Your task to perform on an android device: clear all cookies in the chrome app Image 0: 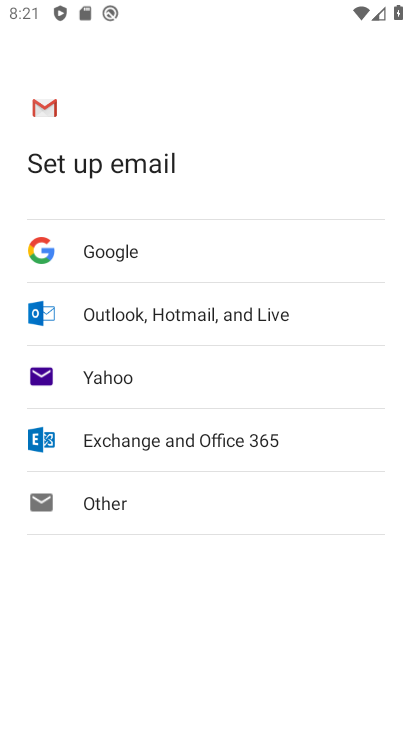
Step 0: press home button
Your task to perform on an android device: clear all cookies in the chrome app Image 1: 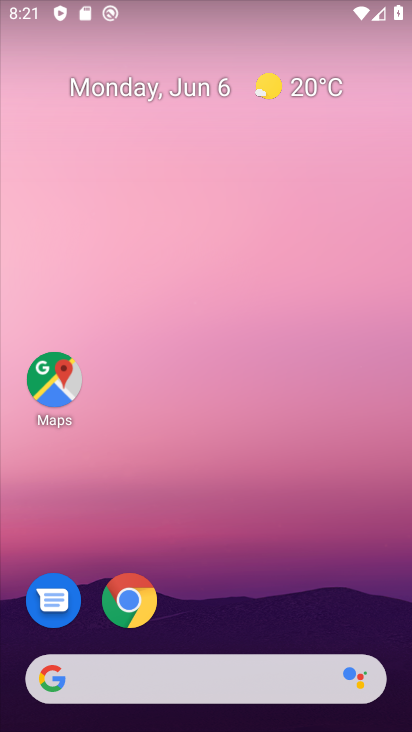
Step 1: click (126, 603)
Your task to perform on an android device: clear all cookies in the chrome app Image 2: 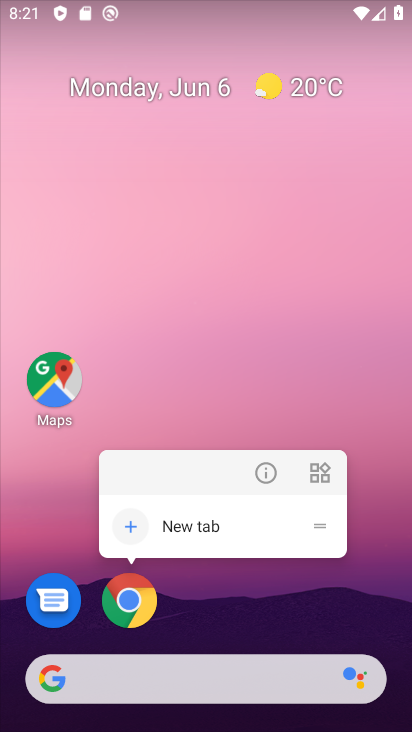
Step 2: click (138, 609)
Your task to perform on an android device: clear all cookies in the chrome app Image 3: 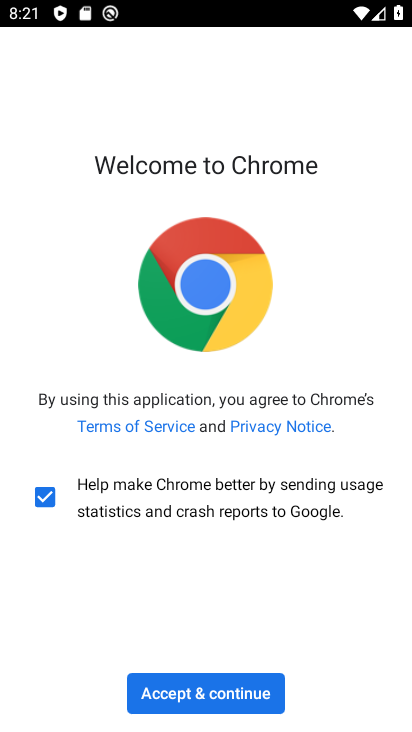
Step 3: click (204, 714)
Your task to perform on an android device: clear all cookies in the chrome app Image 4: 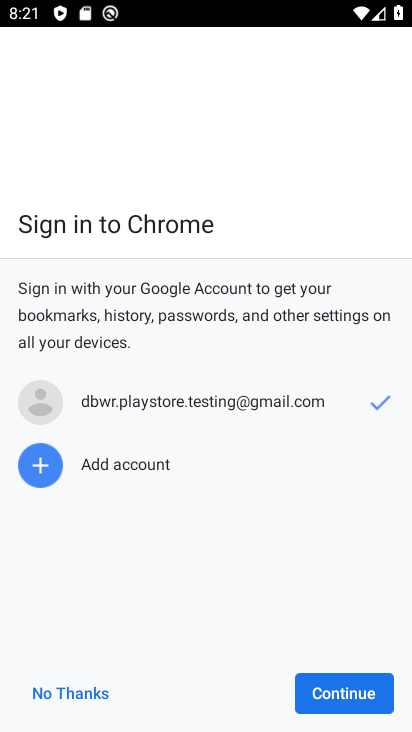
Step 4: click (59, 697)
Your task to perform on an android device: clear all cookies in the chrome app Image 5: 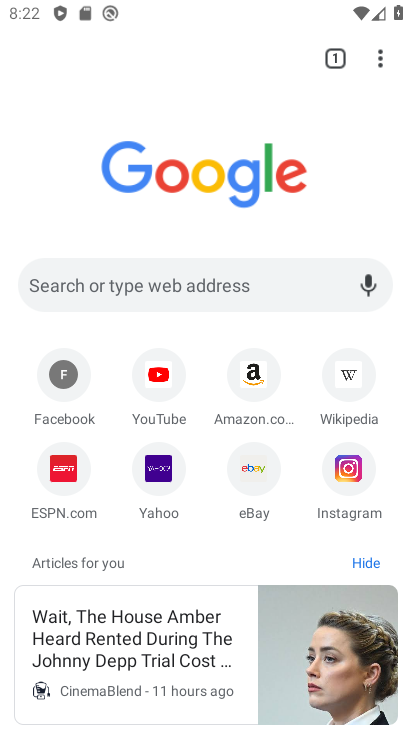
Step 5: click (384, 56)
Your task to perform on an android device: clear all cookies in the chrome app Image 6: 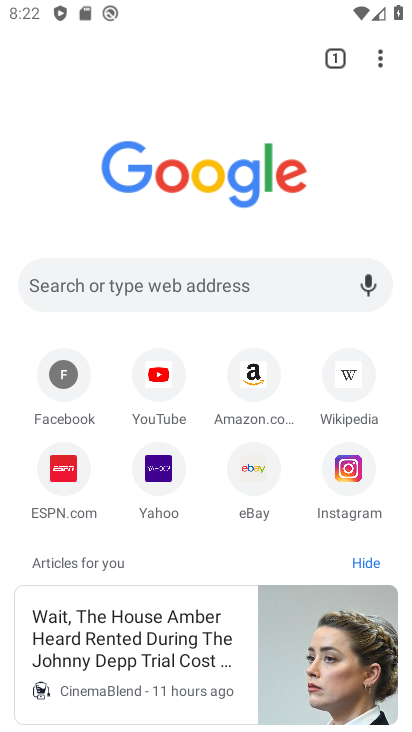
Step 6: click (380, 54)
Your task to perform on an android device: clear all cookies in the chrome app Image 7: 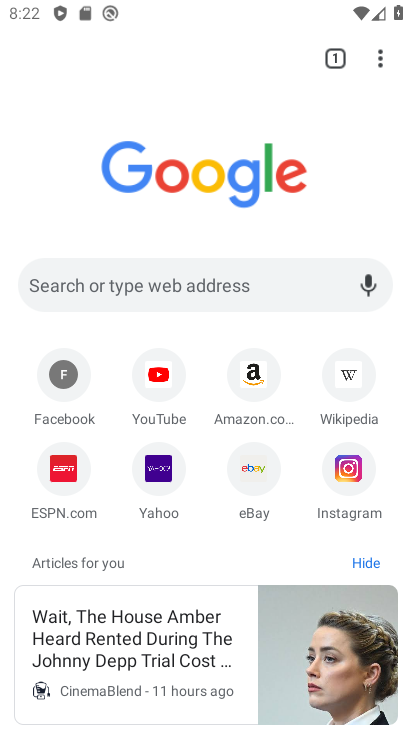
Step 7: click (382, 66)
Your task to perform on an android device: clear all cookies in the chrome app Image 8: 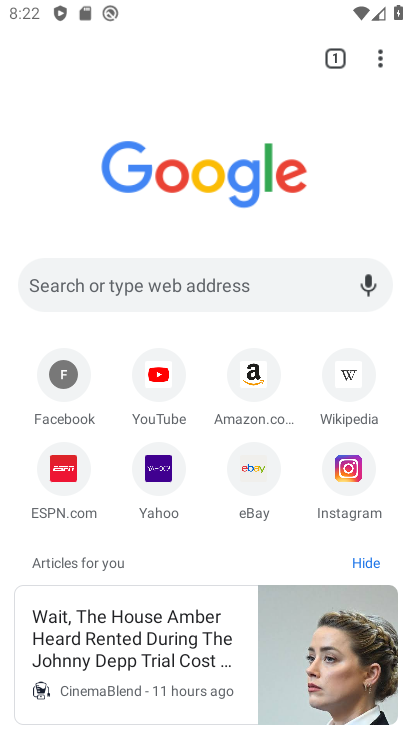
Step 8: click (368, 57)
Your task to perform on an android device: clear all cookies in the chrome app Image 9: 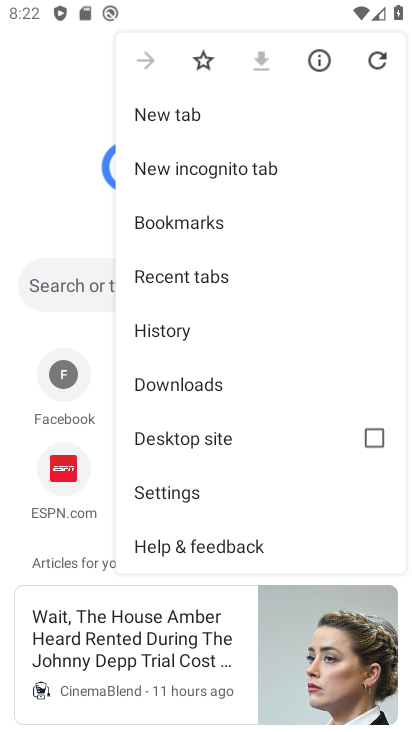
Step 9: click (172, 327)
Your task to perform on an android device: clear all cookies in the chrome app Image 10: 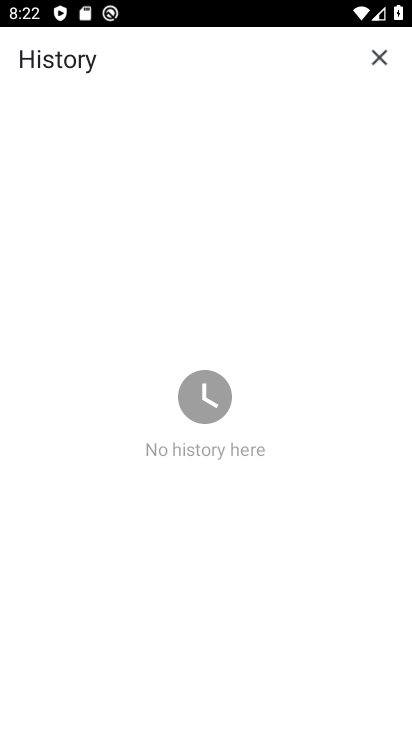
Step 10: task complete